Your task to perform on an android device: open device folders in google photos Image 0: 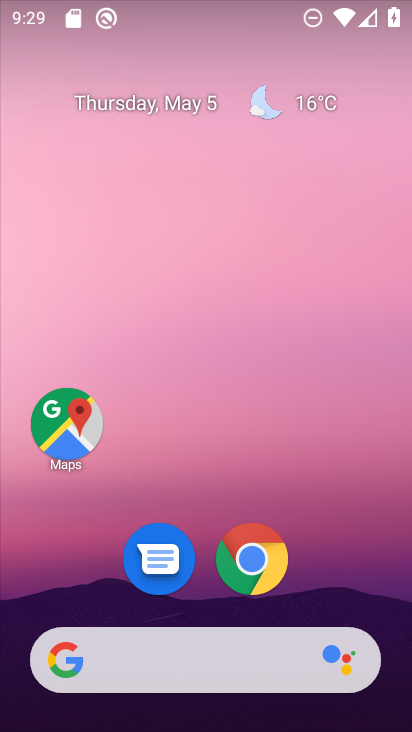
Step 0: drag from (365, 620) to (363, 47)
Your task to perform on an android device: open device folders in google photos Image 1: 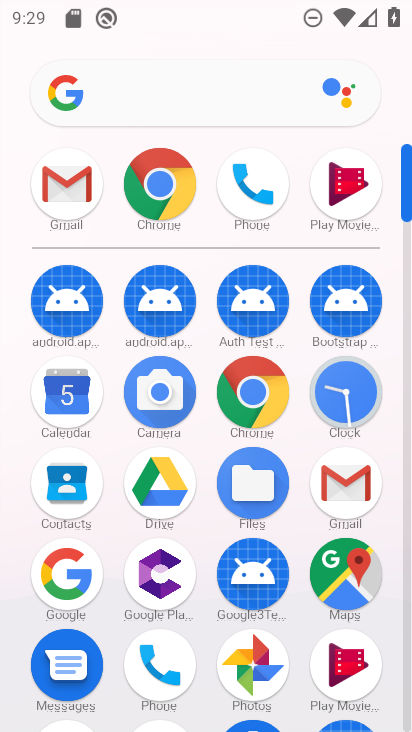
Step 1: click (250, 674)
Your task to perform on an android device: open device folders in google photos Image 2: 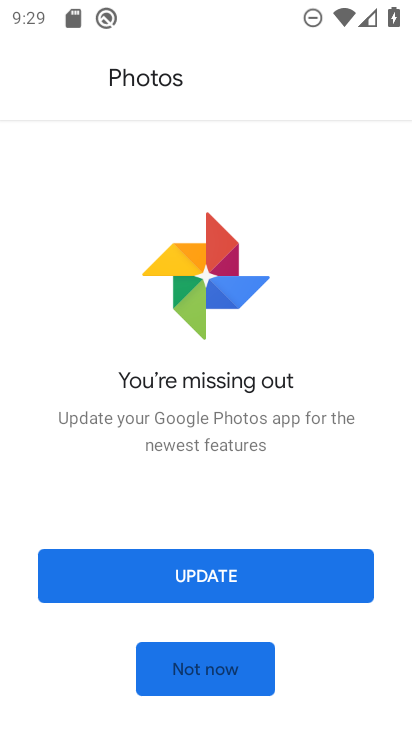
Step 2: click (215, 581)
Your task to perform on an android device: open device folders in google photos Image 3: 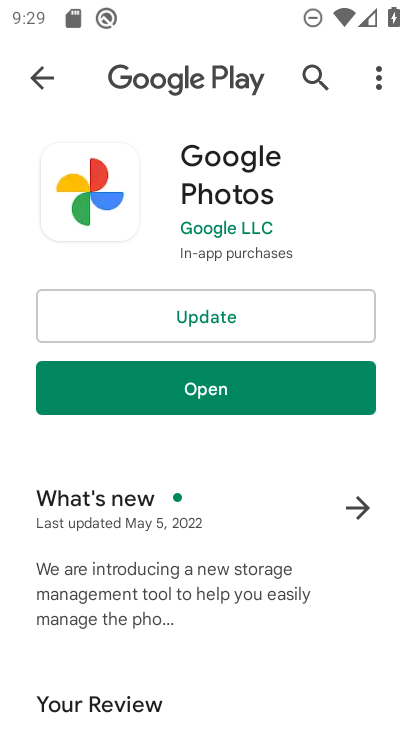
Step 3: click (214, 394)
Your task to perform on an android device: open device folders in google photos Image 4: 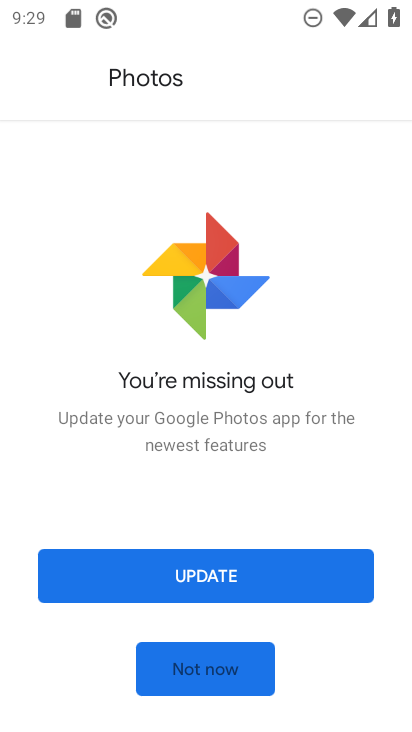
Step 4: click (192, 660)
Your task to perform on an android device: open device folders in google photos Image 5: 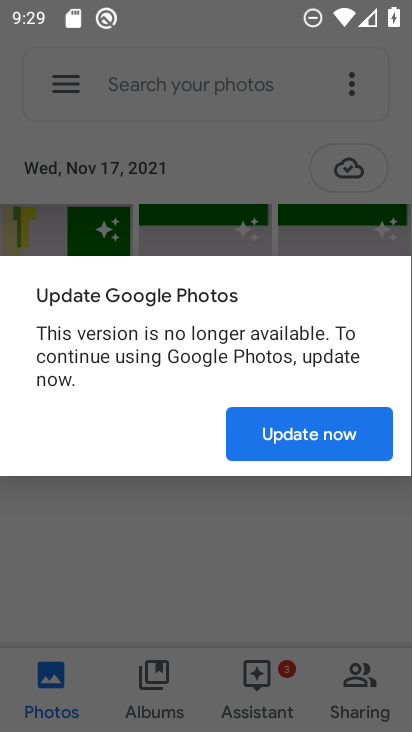
Step 5: click (297, 454)
Your task to perform on an android device: open device folders in google photos Image 6: 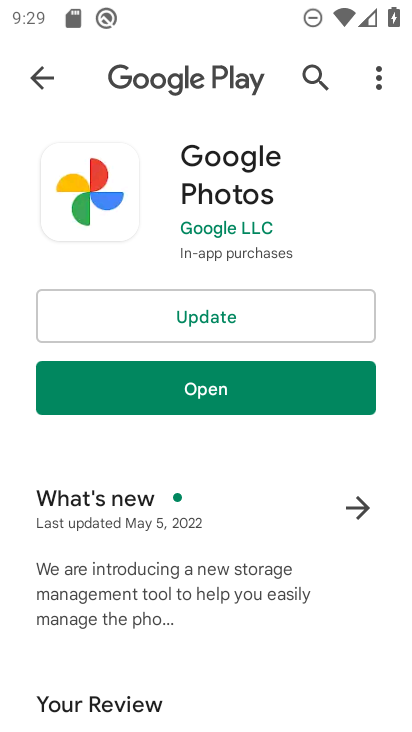
Step 6: click (204, 398)
Your task to perform on an android device: open device folders in google photos Image 7: 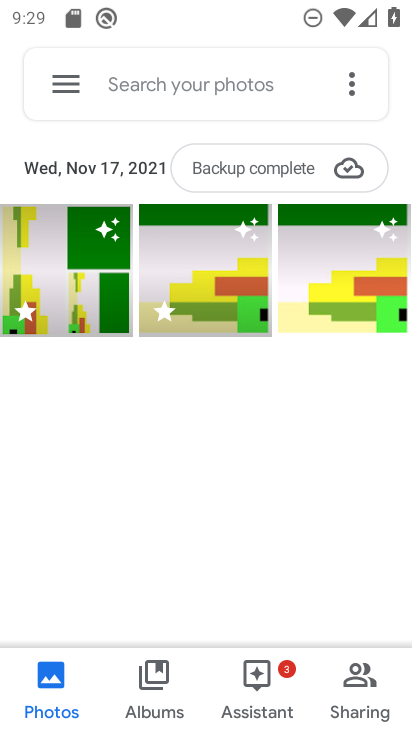
Step 7: click (54, 80)
Your task to perform on an android device: open device folders in google photos Image 8: 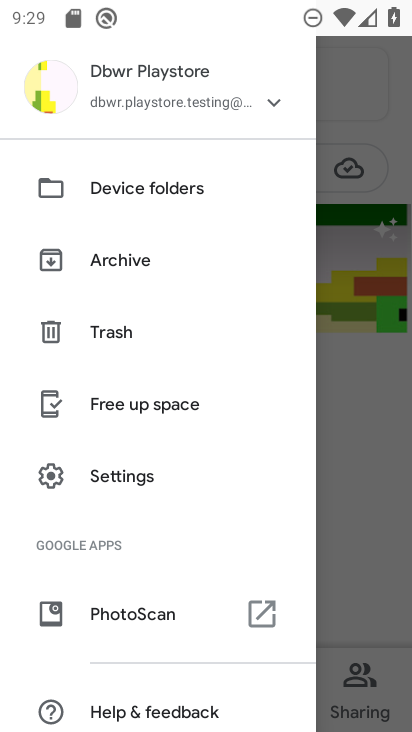
Step 8: click (94, 181)
Your task to perform on an android device: open device folders in google photos Image 9: 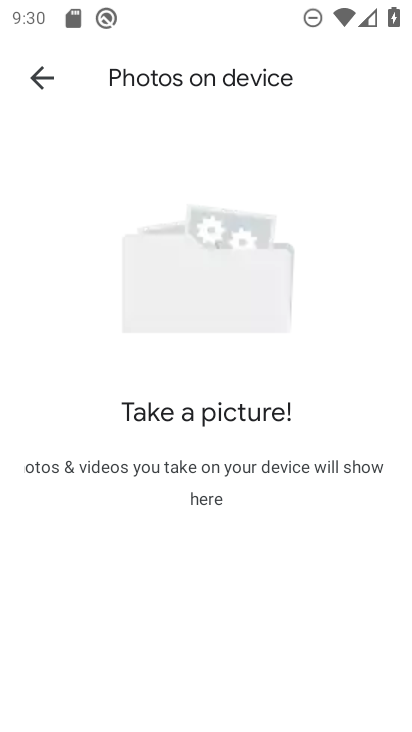
Step 9: task complete